Your task to perform on an android device: Search for seafood restaurants on Google Maps Image 0: 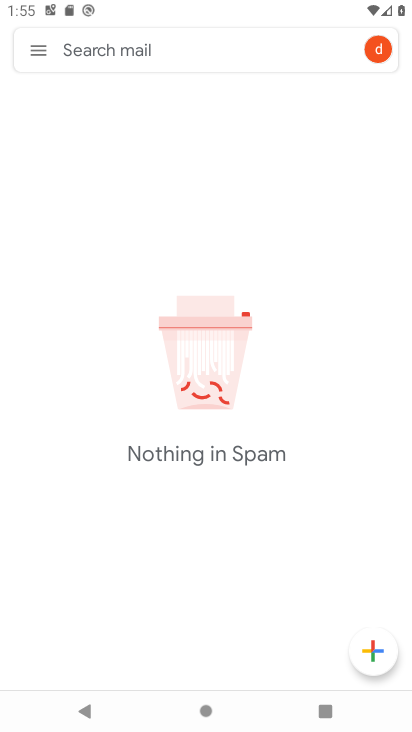
Step 0: press home button
Your task to perform on an android device: Search for seafood restaurants on Google Maps Image 1: 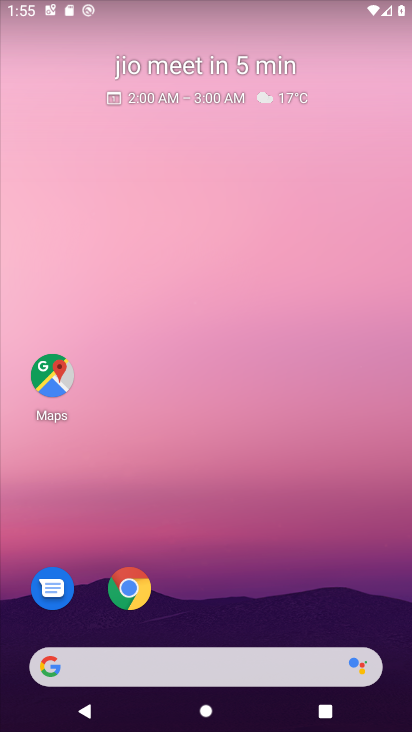
Step 1: click (60, 368)
Your task to perform on an android device: Search for seafood restaurants on Google Maps Image 2: 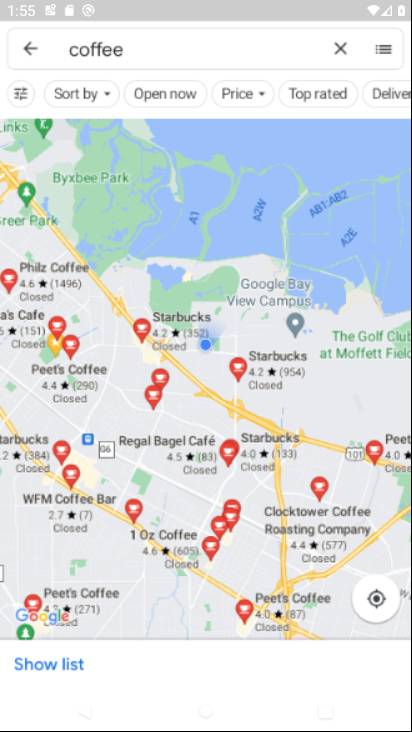
Step 2: click (340, 48)
Your task to perform on an android device: Search for seafood restaurants on Google Maps Image 3: 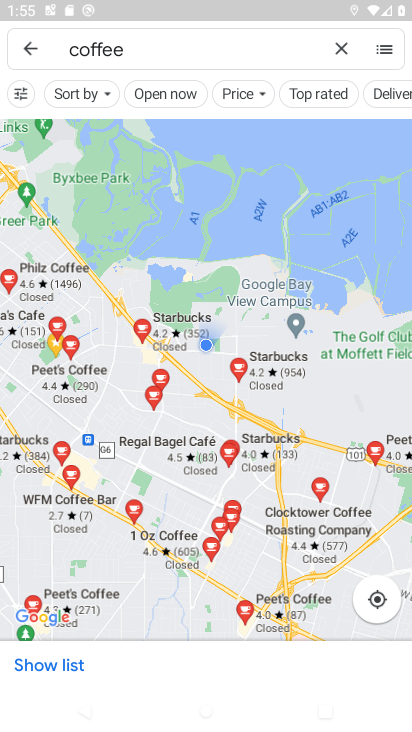
Step 3: click (342, 45)
Your task to perform on an android device: Search for seafood restaurants on Google Maps Image 4: 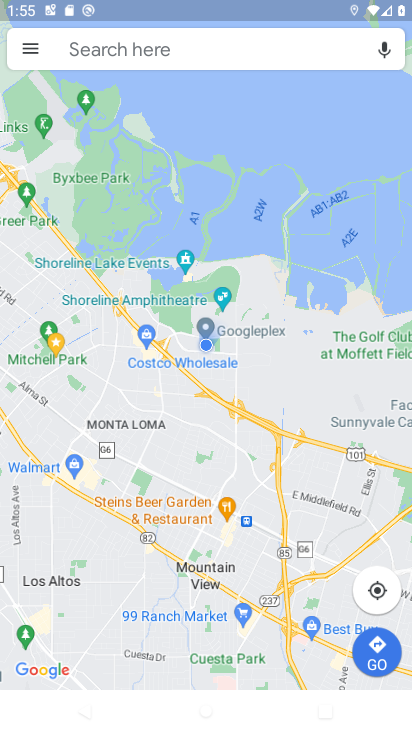
Step 4: click (184, 52)
Your task to perform on an android device: Search for seafood restaurants on Google Maps Image 5: 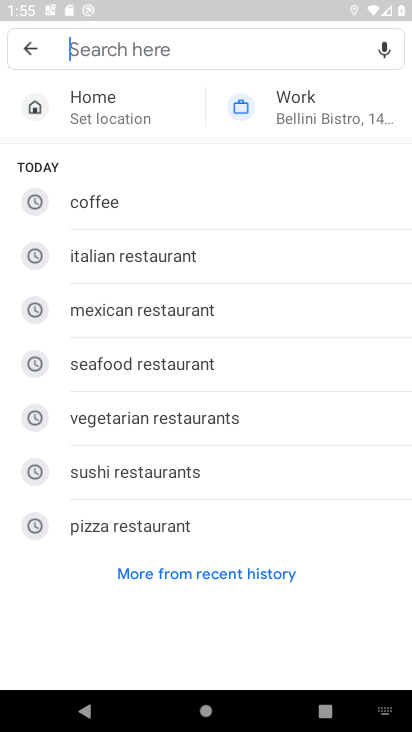
Step 5: click (166, 382)
Your task to perform on an android device: Search for seafood restaurants on Google Maps Image 6: 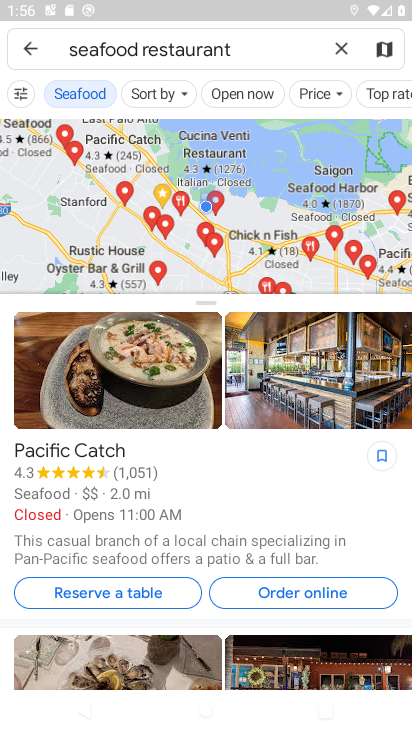
Step 6: task complete